Your task to perform on an android device: change your default location settings in chrome Image 0: 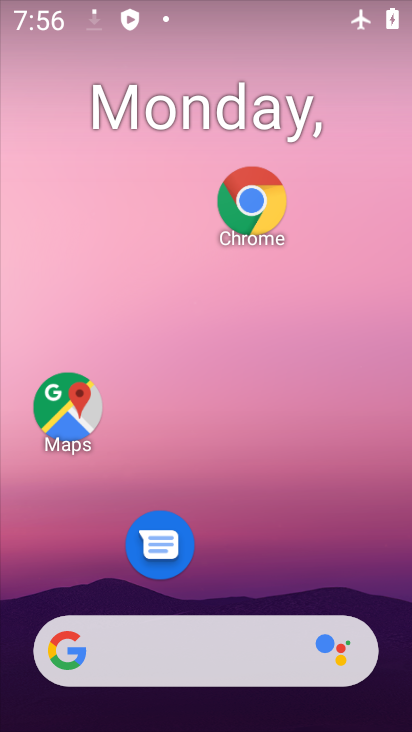
Step 0: click (272, 193)
Your task to perform on an android device: change your default location settings in chrome Image 1: 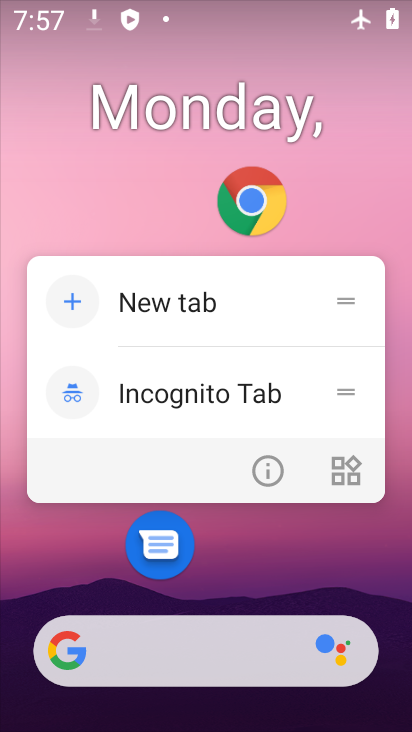
Step 1: click (249, 211)
Your task to perform on an android device: change your default location settings in chrome Image 2: 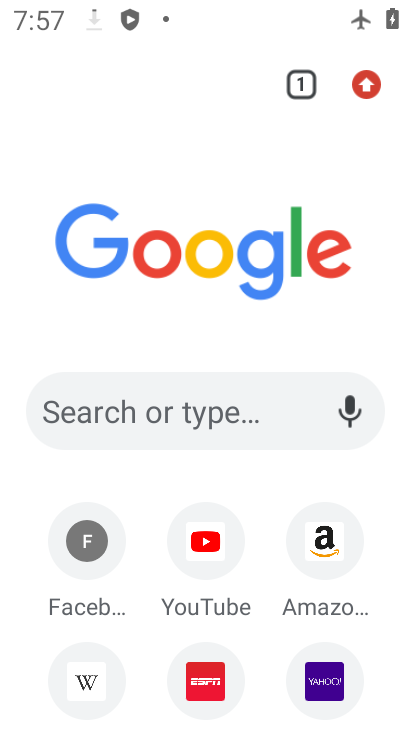
Step 2: click (359, 74)
Your task to perform on an android device: change your default location settings in chrome Image 3: 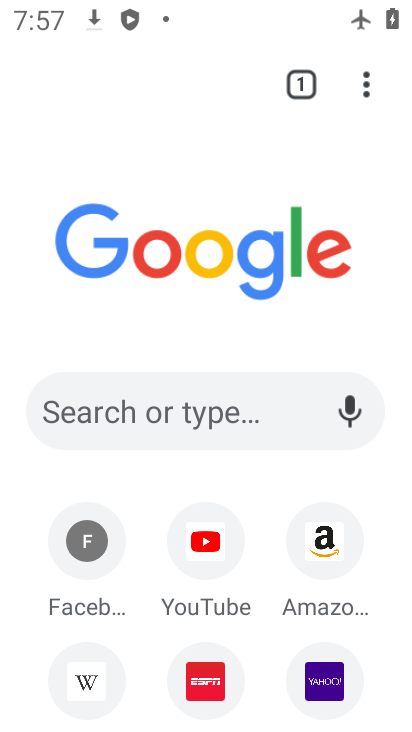
Step 3: click (359, 74)
Your task to perform on an android device: change your default location settings in chrome Image 4: 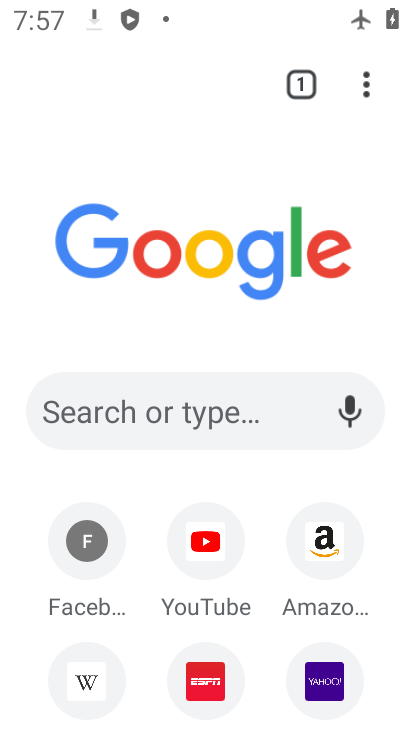
Step 4: click (370, 78)
Your task to perform on an android device: change your default location settings in chrome Image 5: 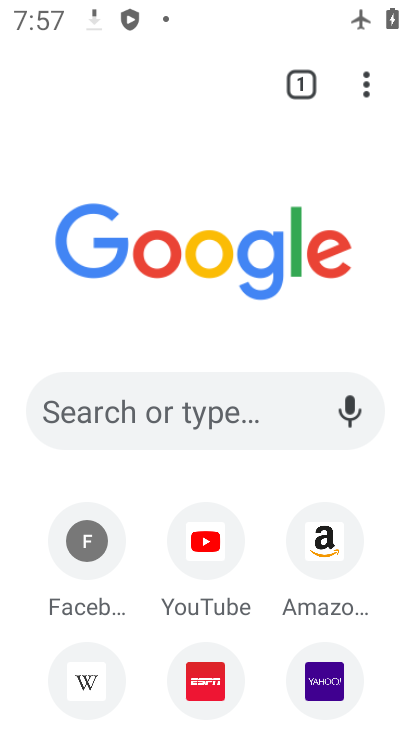
Step 5: click (358, 85)
Your task to perform on an android device: change your default location settings in chrome Image 6: 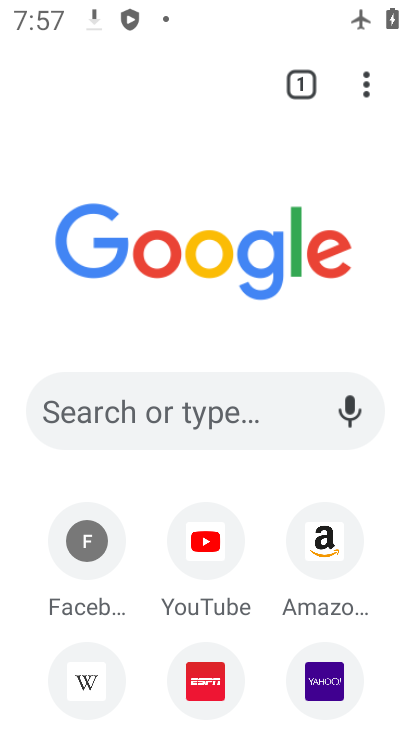
Step 6: click (362, 75)
Your task to perform on an android device: change your default location settings in chrome Image 7: 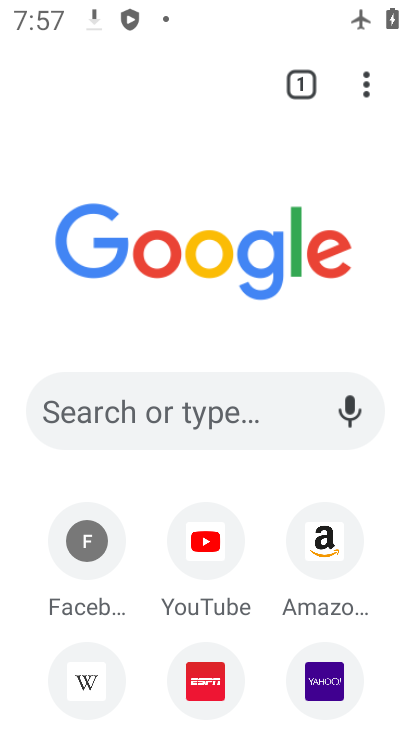
Step 7: click (367, 87)
Your task to perform on an android device: change your default location settings in chrome Image 8: 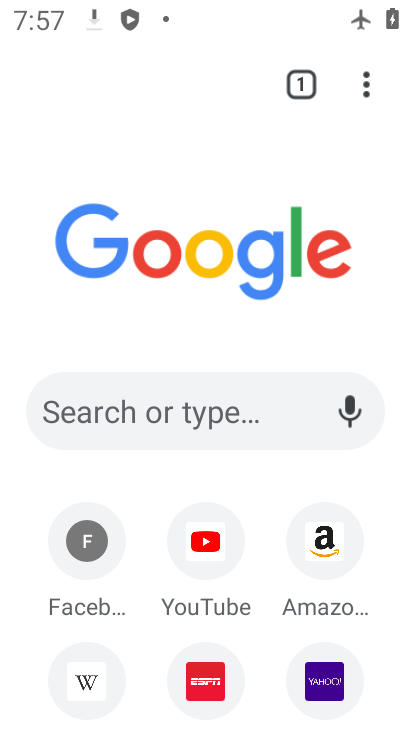
Step 8: drag from (297, 339) to (333, 117)
Your task to perform on an android device: change your default location settings in chrome Image 9: 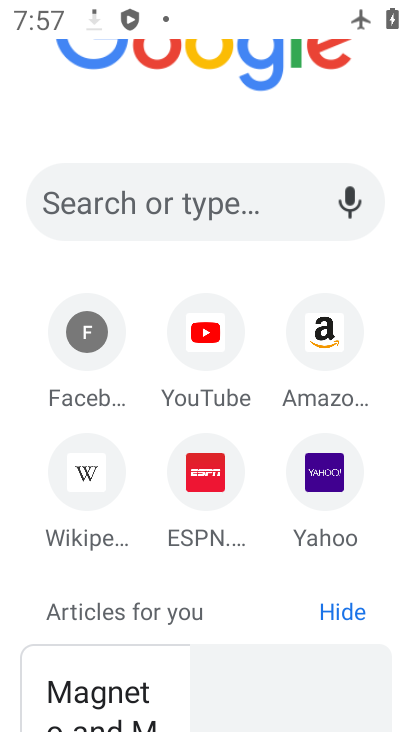
Step 9: drag from (371, 89) to (368, 442)
Your task to perform on an android device: change your default location settings in chrome Image 10: 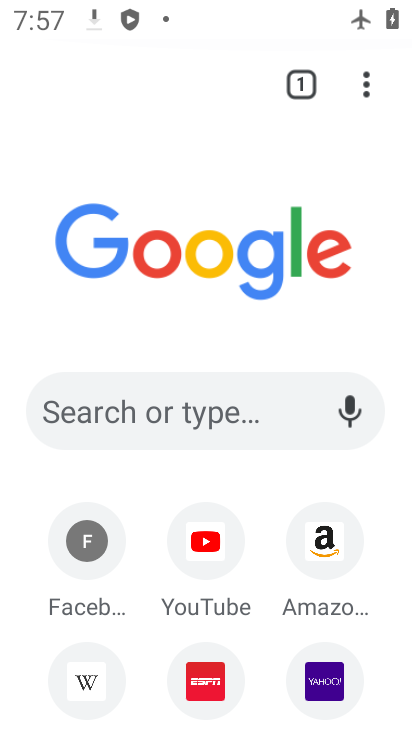
Step 10: click (360, 83)
Your task to perform on an android device: change your default location settings in chrome Image 11: 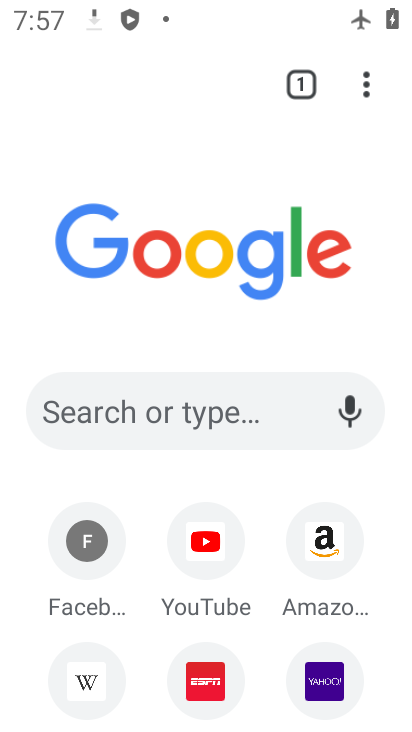
Step 11: click (366, 83)
Your task to perform on an android device: change your default location settings in chrome Image 12: 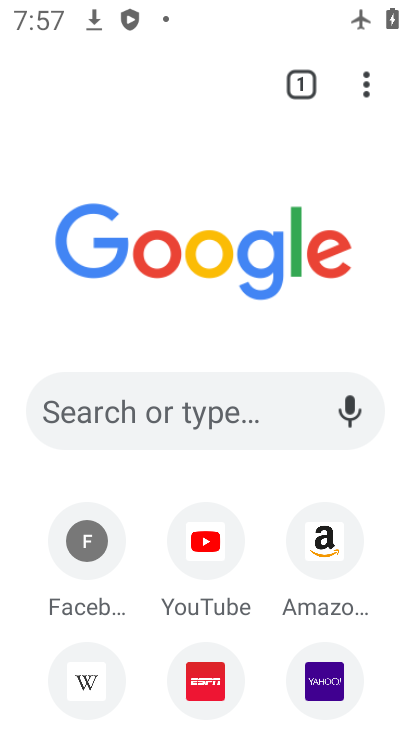
Step 12: click (366, 83)
Your task to perform on an android device: change your default location settings in chrome Image 13: 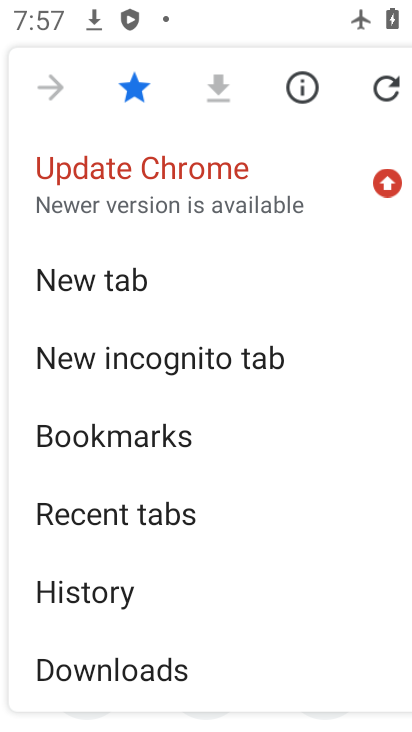
Step 13: drag from (200, 609) to (264, 365)
Your task to perform on an android device: change your default location settings in chrome Image 14: 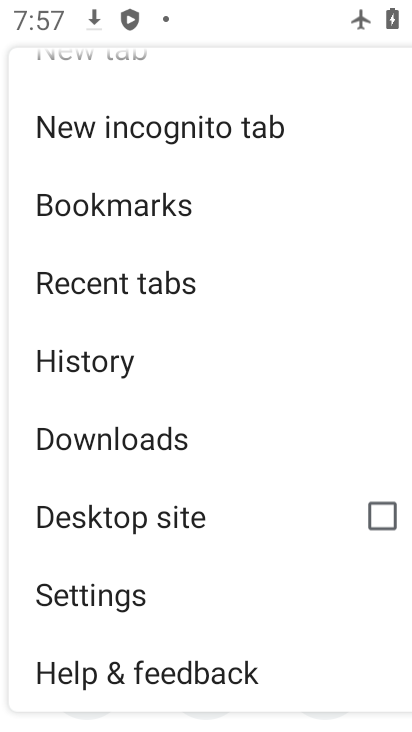
Step 14: click (175, 576)
Your task to perform on an android device: change your default location settings in chrome Image 15: 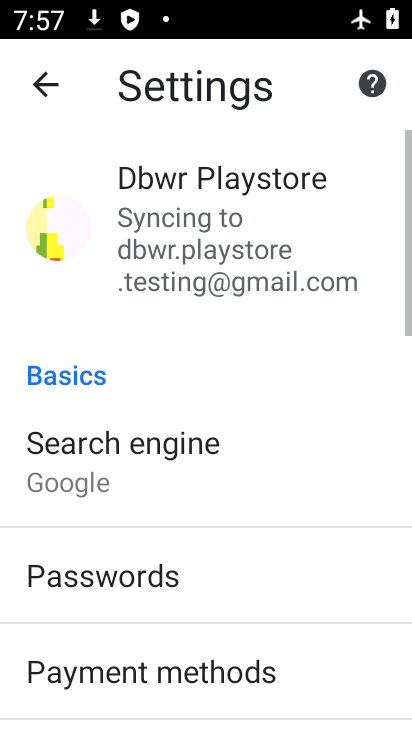
Step 15: drag from (239, 574) to (287, 254)
Your task to perform on an android device: change your default location settings in chrome Image 16: 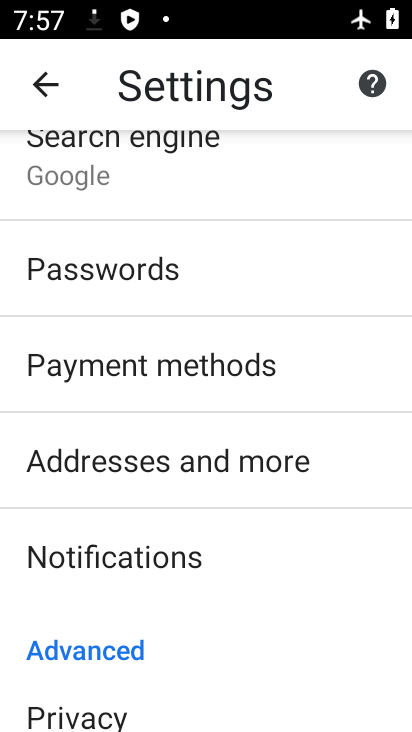
Step 16: drag from (211, 602) to (257, 276)
Your task to perform on an android device: change your default location settings in chrome Image 17: 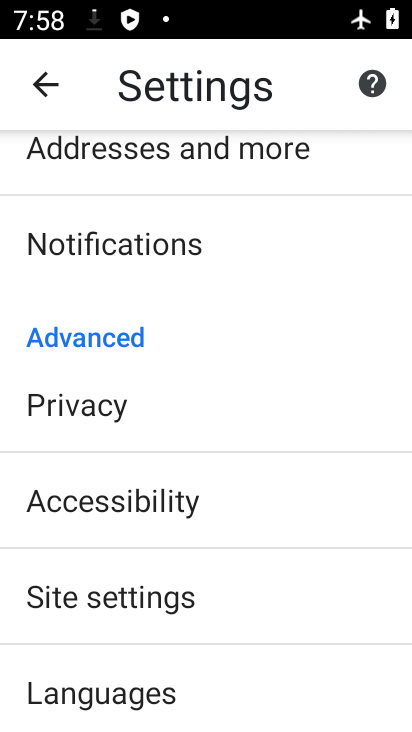
Step 17: click (190, 581)
Your task to perform on an android device: change your default location settings in chrome Image 18: 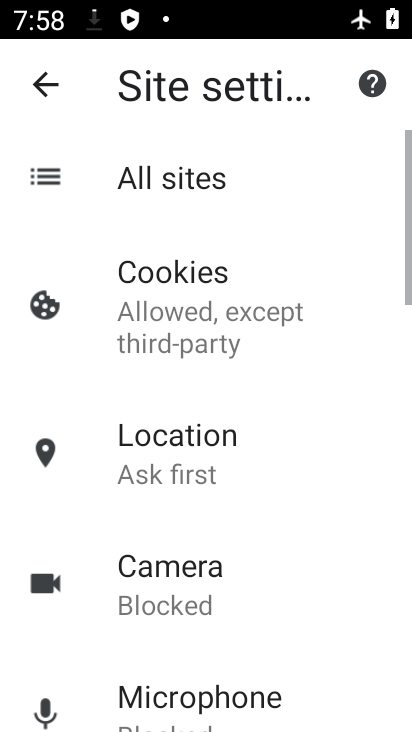
Step 18: click (216, 441)
Your task to perform on an android device: change your default location settings in chrome Image 19: 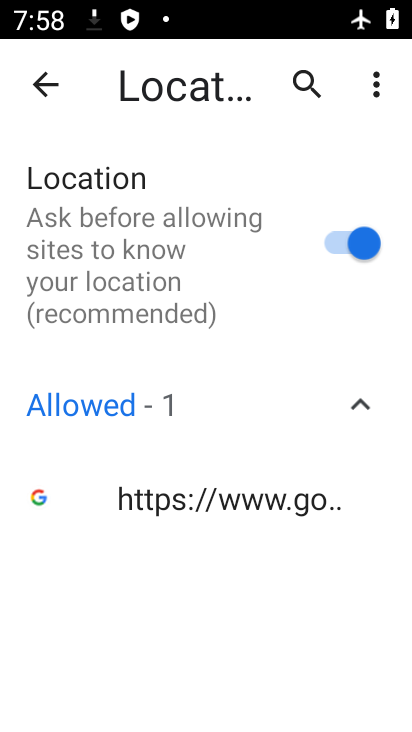
Step 19: click (332, 233)
Your task to perform on an android device: change your default location settings in chrome Image 20: 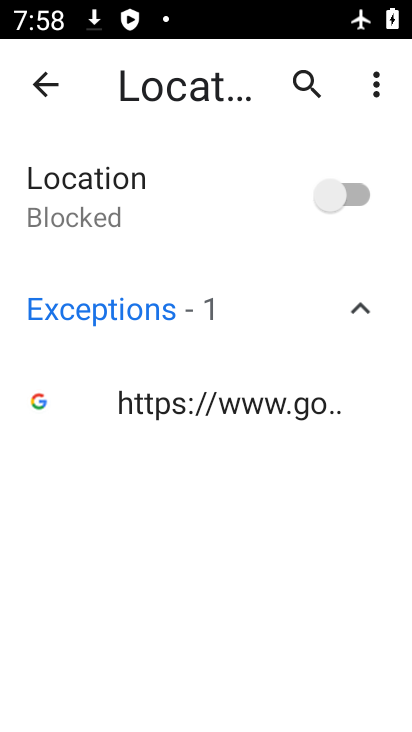
Step 20: task complete